Your task to perform on an android device: all mails in gmail Image 0: 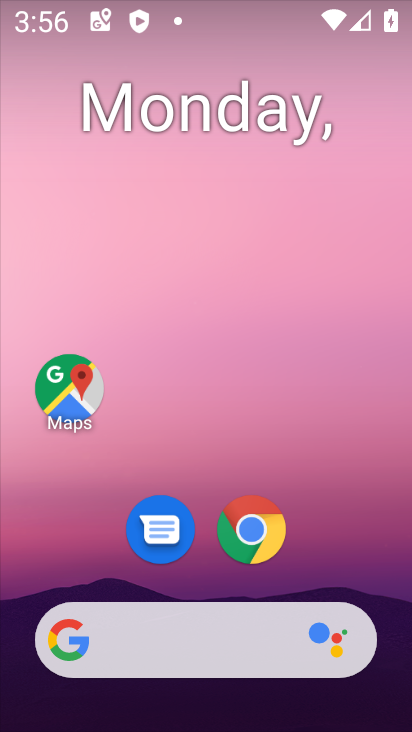
Step 0: drag from (201, 702) to (184, 132)
Your task to perform on an android device: all mails in gmail Image 1: 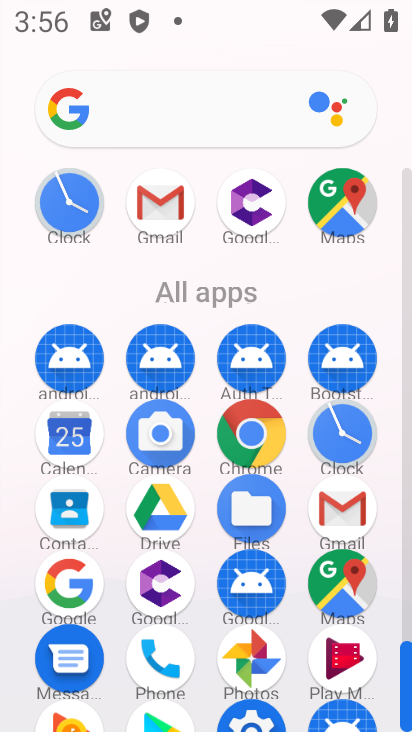
Step 1: click (338, 503)
Your task to perform on an android device: all mails in gmail Image 2: 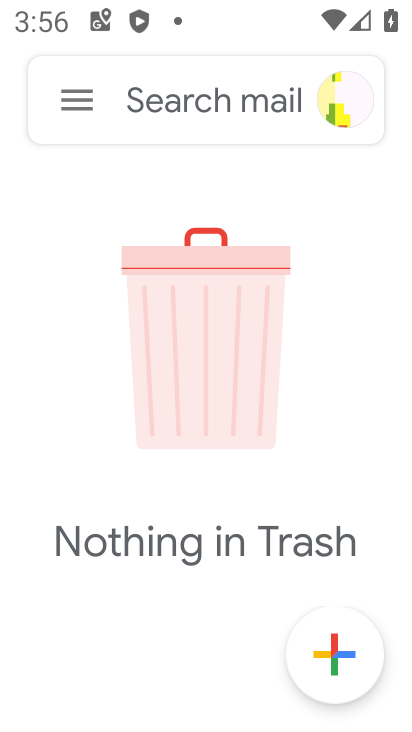
Step 2: click (79, 99)
Your task to perform on an android device: all mails in gmail Image 3: 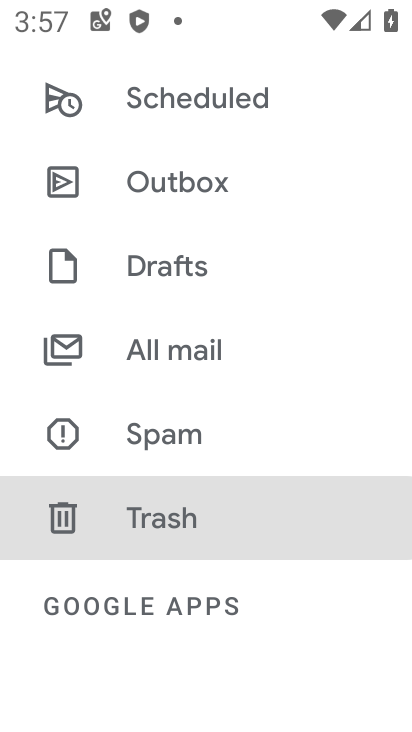
Step 3: click (177, 350)
Your task to perform on an android device: all mails in gmail Image 4: 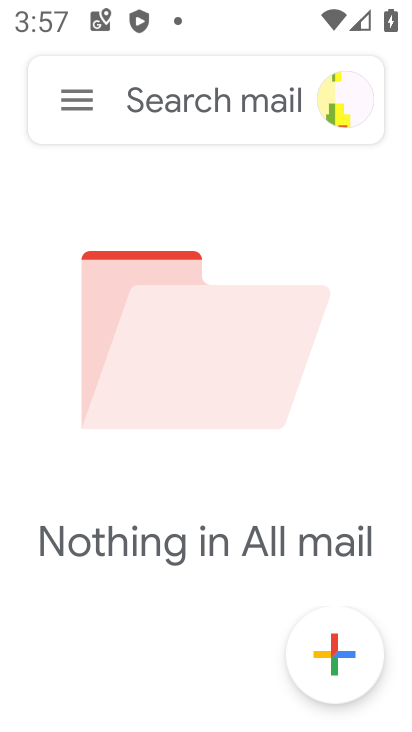
Step 4: task complete